Your task to perform on an android device: turn on priority inbox in the gmail app Image 0: 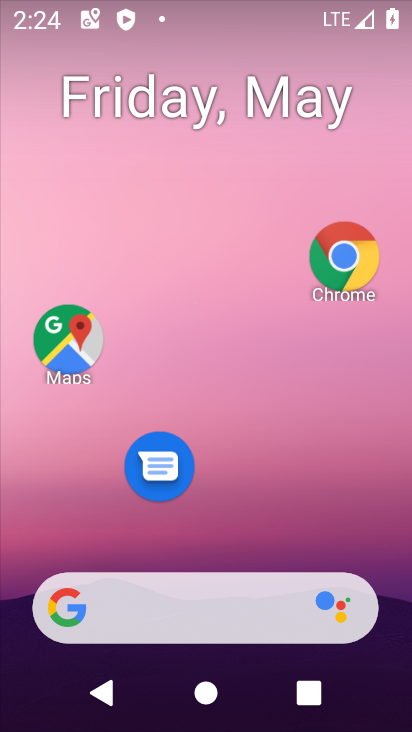
Step 0: drag from (231, 523) to (215, 38)
Your task to perform on an android device: turn on priority inbox in the gmail app Image 1: 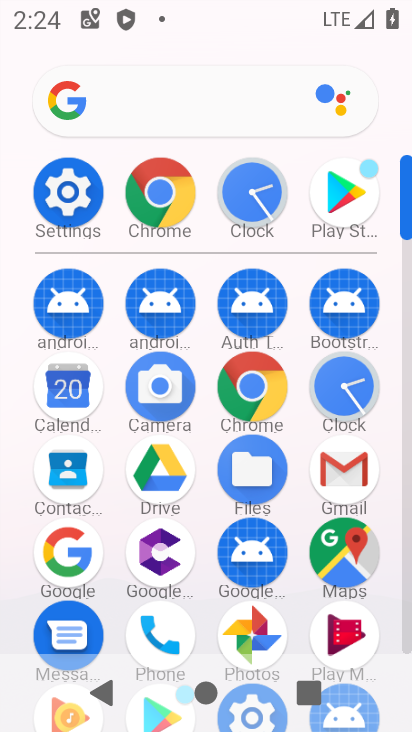
Step 1: click (340, 463)
Your task to perform on an android device: turn on priority inbox in the gmail app Image 2: 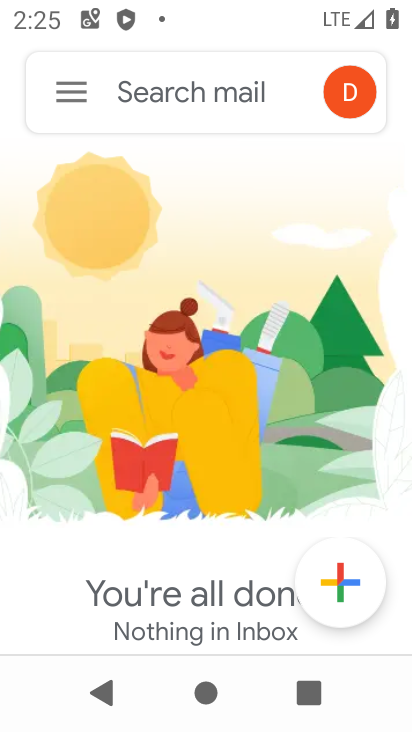
Step 2: click (82, 97)
Your task to perform on an android device: turn on priority inbox in the gmail app Image 3: 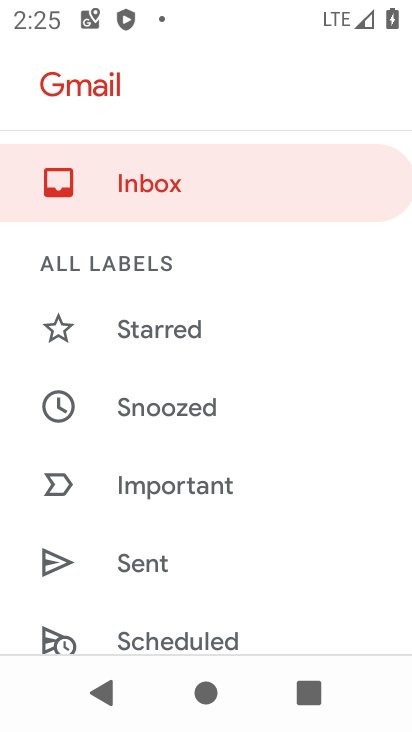
Step 3: drag from (177, 569) to (246, 132)
Your task to perform on an android device: turn on priority inbox in the gmail app Image 4: 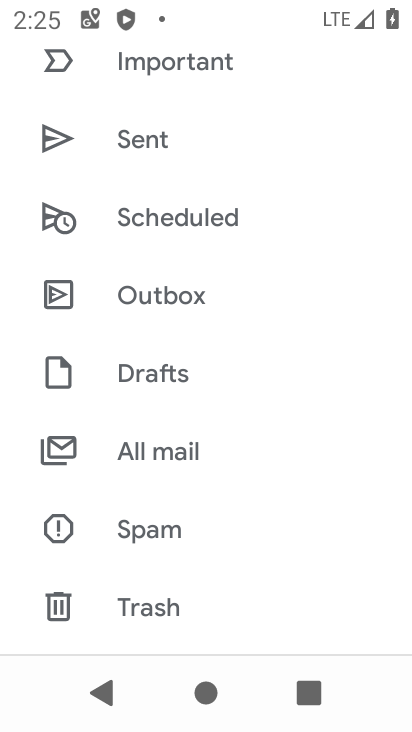
Step 4: drag from (226, 547) to (238, 177)
Your task to perform on an android device: turn on priority inbox in the gmail app Image 5: 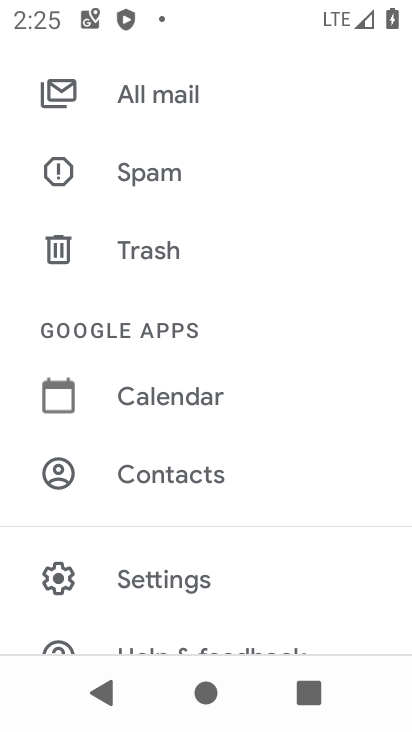
Step 5: click (136, 577)
Your task to perform on an android device: turn on priority inbox in the gmail app Image 6: 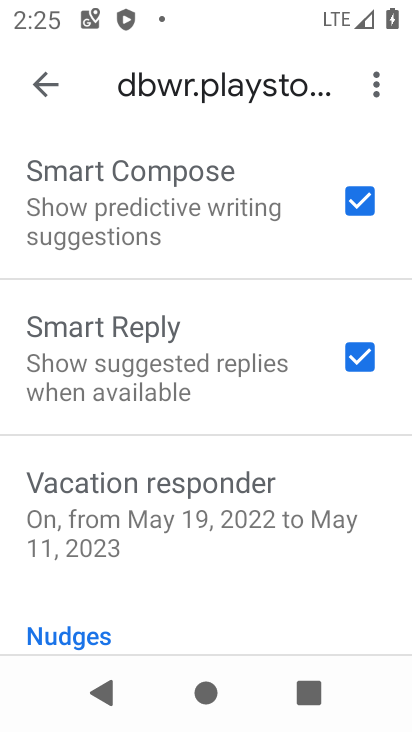
Step 6: drag from (235, 188) to (234, 544)
Your task to perform on an android device: turn on priority inbox in the gmail app Image 7: 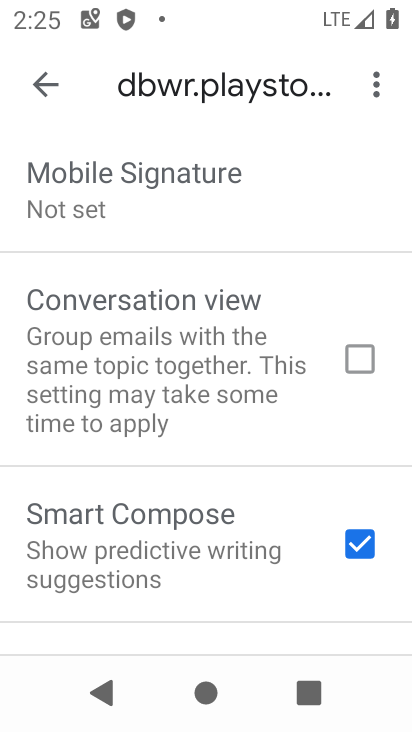
Step 7: drag from (212, 237) to (208, 550)
Your task to perform on an android device: turn on priority inbox in the gmail app Image 8: 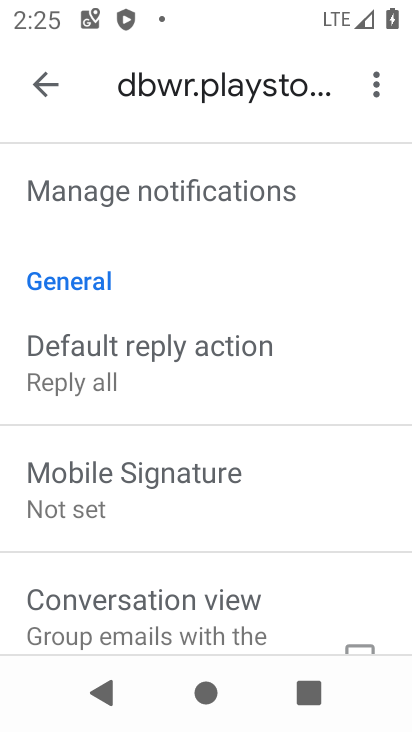
Step 8: drag from (214, 154) to (200, 478)
Your task to perform on an android device: turn on priority inbox in the gmail app Image 9: 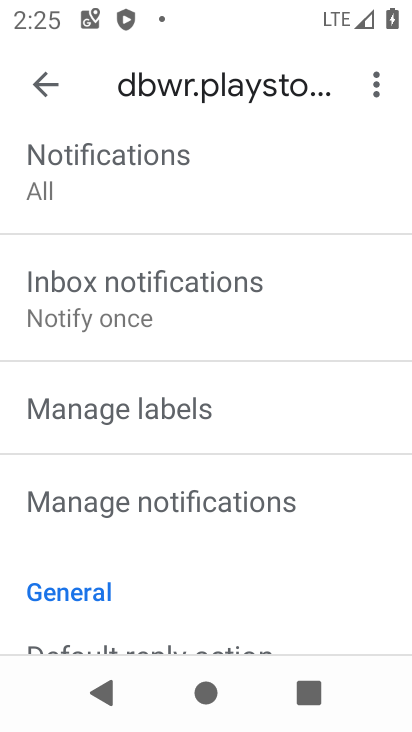
Step 9: drag from (214, 168) to (148, 471)
Your task to perform on an android device: turn on priority inbox in the gmail app Image 10: 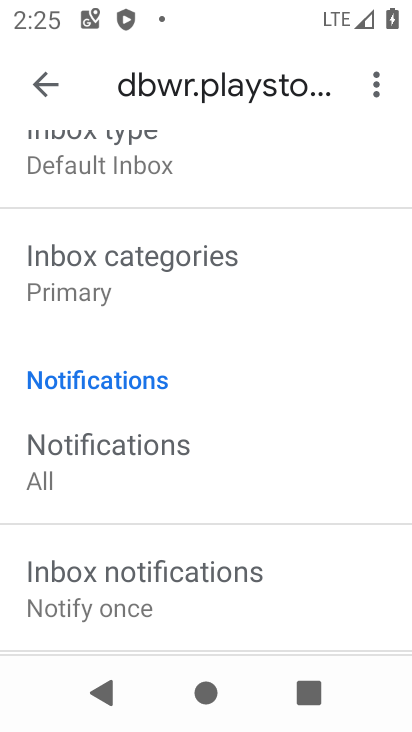
Step 10: drag from (151, 181) to (76, 385)
Your task to perform on an android device: turn on priority inbox in the gmail app Image 11: 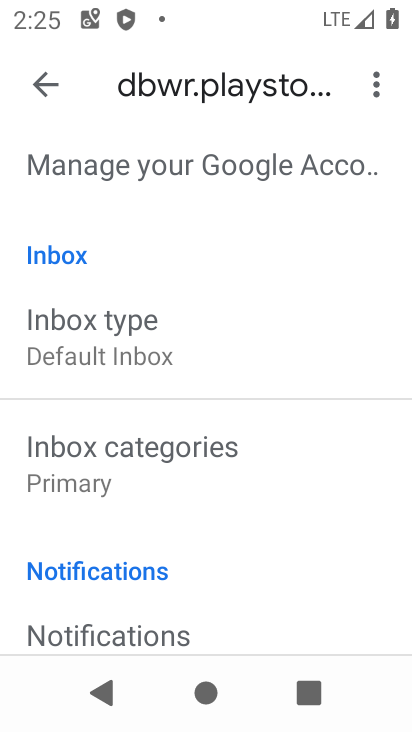
Step 11: click (69, 353)
Your task to perform on an android device: turn on priority inbox in the gmail app Image 12: 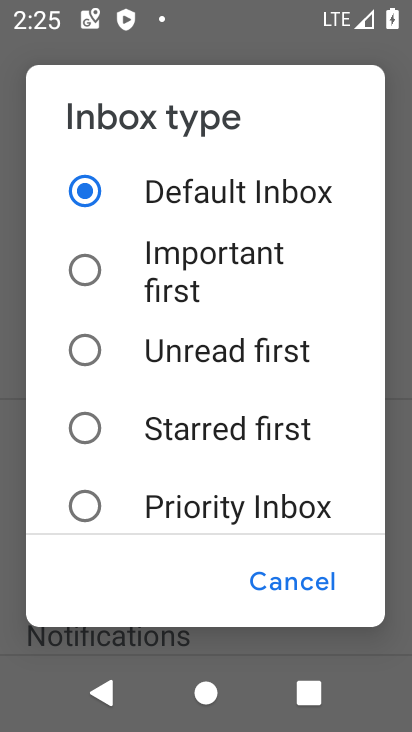
Step 12: click (148, 504)
Your task to perform on an android device: turn on priority inbox in the gmail app Image 13: 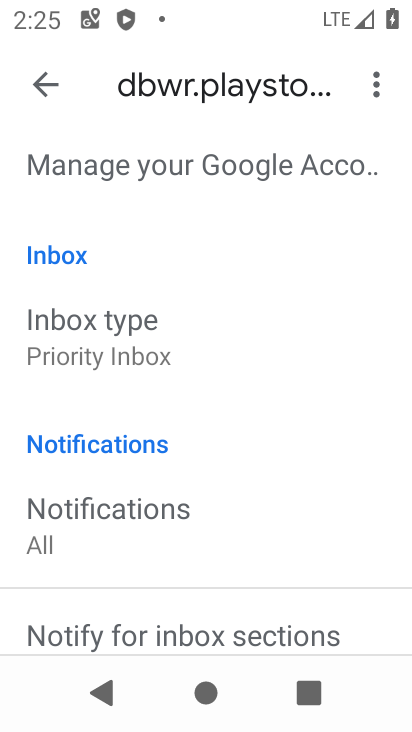
Step 13: task complete